Your task to perform on an android device: turn pop-ups off in chrome Image 0: 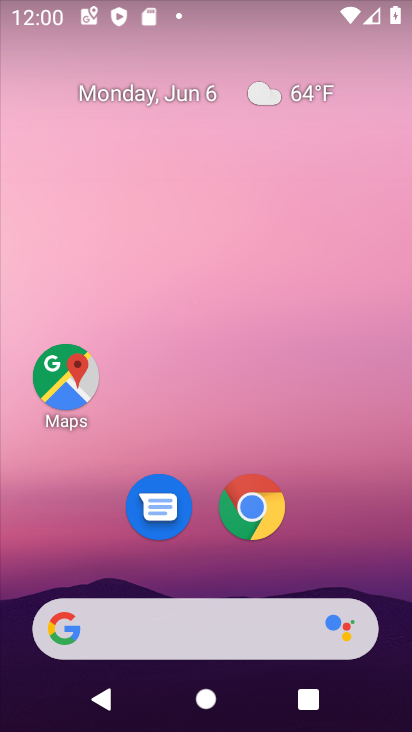
Step 0: click (258, 495)
Your task to perform on an android device: turn pop-ups off in chrome Image 1: 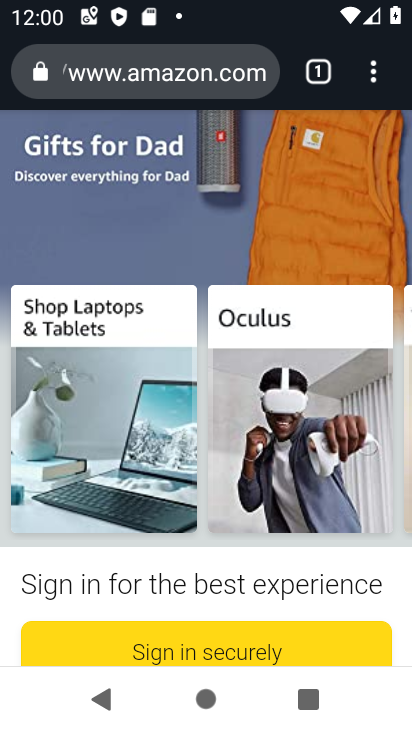
Step 1: drag from (369, 74) to (206, 522)
Your task to perform on an android device: turn pop-ups off in chrome Image 2: 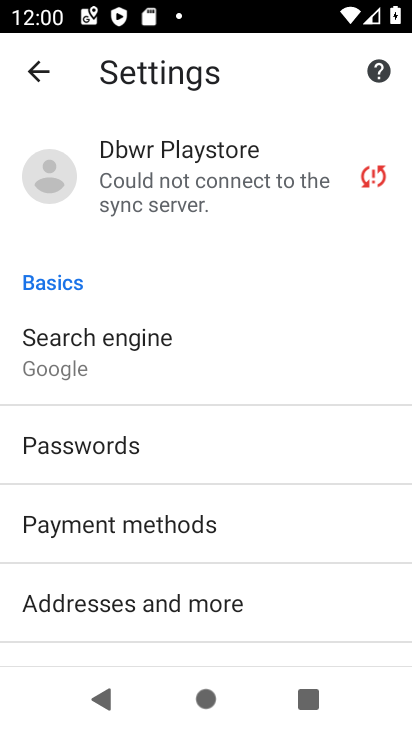
Step 2: drag from (221, 495) to (312, 56)
Your task to perform on an android device: turn pop-ups off in chrome Image 3: 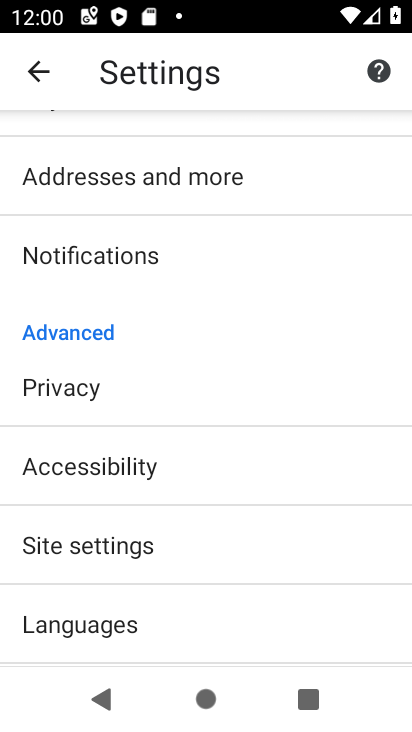
Step 3: click (138, 544)
Your task to perform on an android device: turn pop-ups off in chrome Image 4: 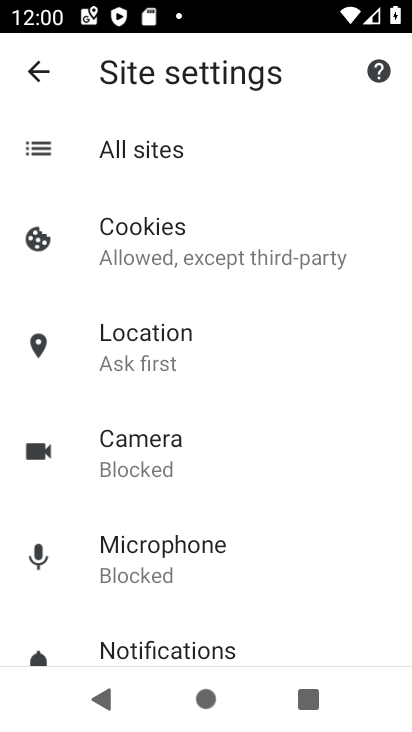
Step 4: drag from (236, 494) to (300, 221)
Your task to perform on an android device: turn pop-ups off in chrome Image 5: 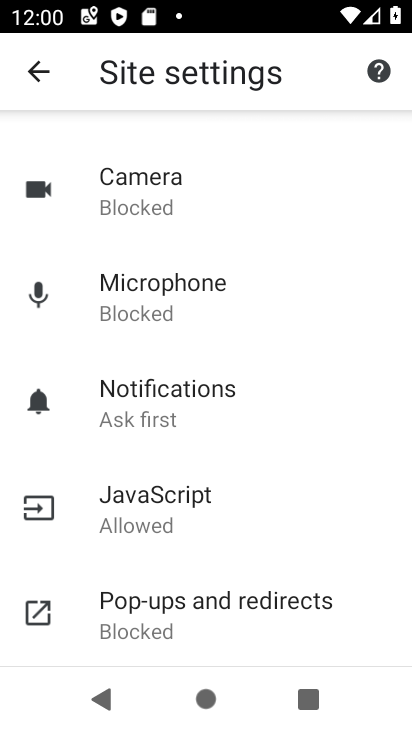
Step 5: click (169, 602)
Your task to perform on an android device: turn pop-ups off in chrome Image 6: 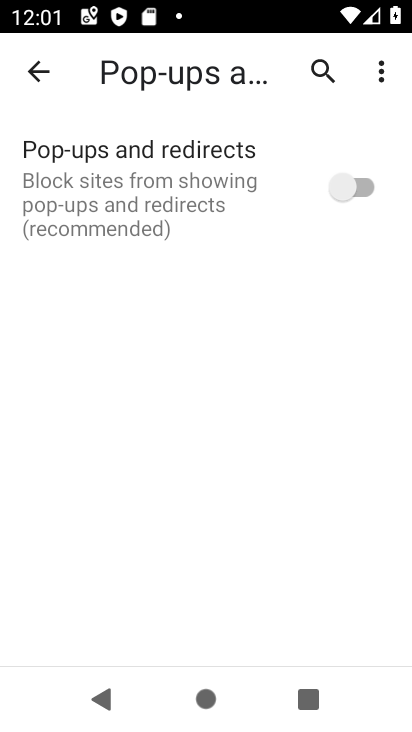
Step 6: task complete